Your task to perform on an android device: Go to internet settings Image 0: 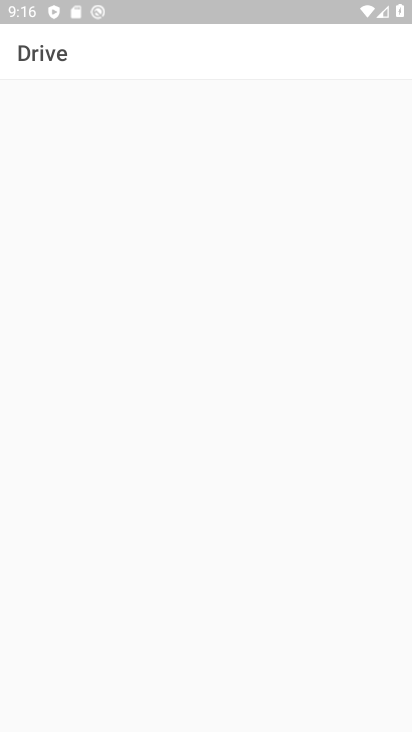
Step 0: press home button
Your task to perform on an android device: Go to internet settings Image 1: 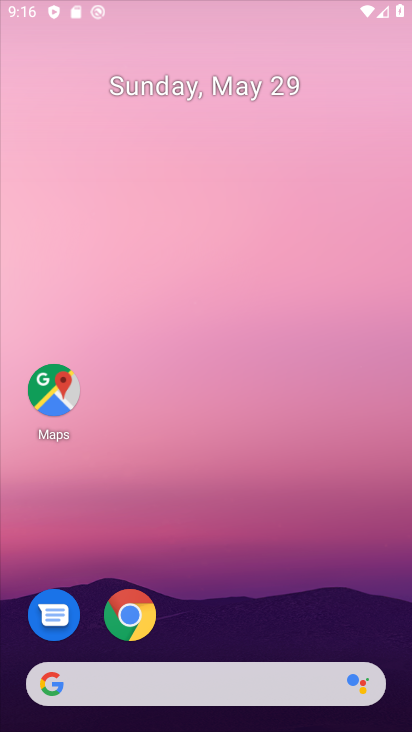
Step 1: drag from (244, 658) to (201, 11)
Your task to perform on an android device: Go to internet settings Image 2: 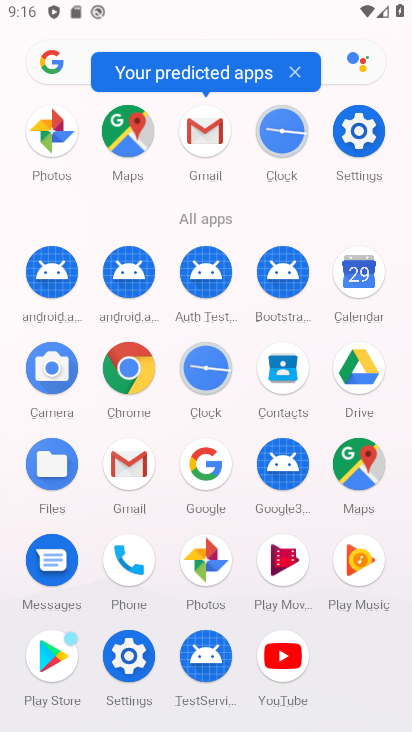
Step 2: click (351, 143)
Your task to perform on an android device: Go to internet settings Image 3: 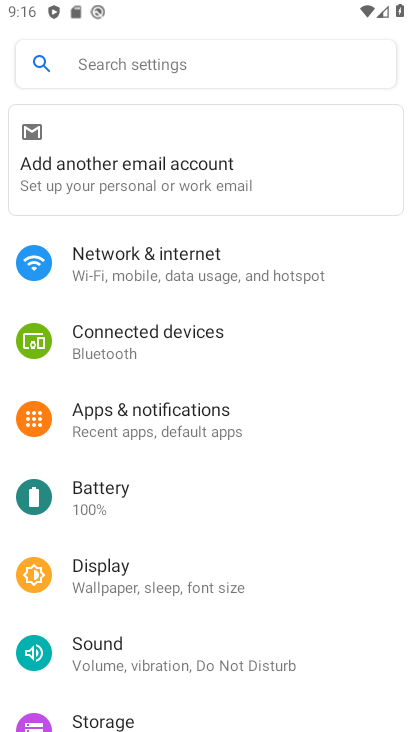
Step 3: click (108, 273)
Your task to perform on an android device: Go to internet settings Image 4: 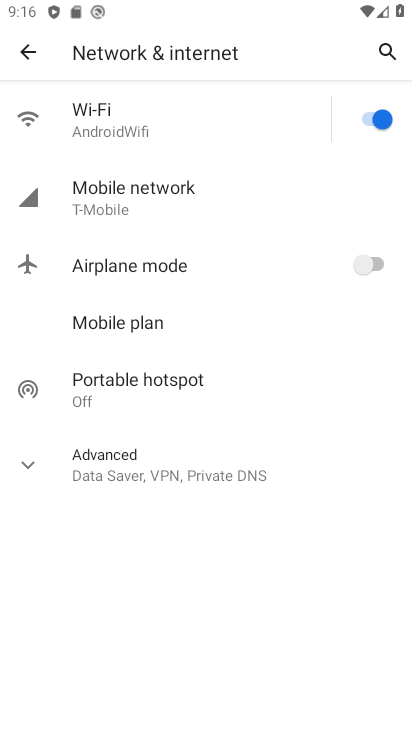
Step 4: click (117, 190)
Your task to perform on an android device: Go to internet settings Image 5: 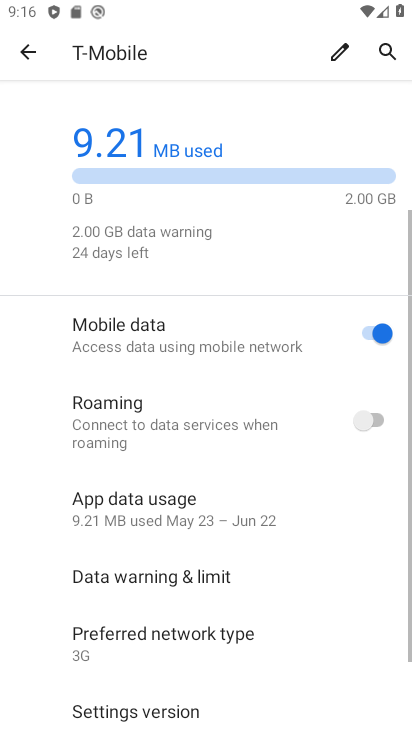
Step 5: task complete